Your task to perform on an android device: Open notification settings Image 0: 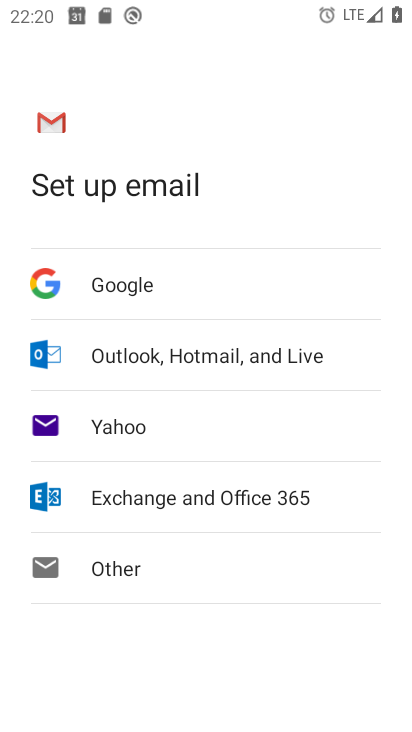
Step 0: press home button
Your task to perform on an android device: Open notification settings Image 1: 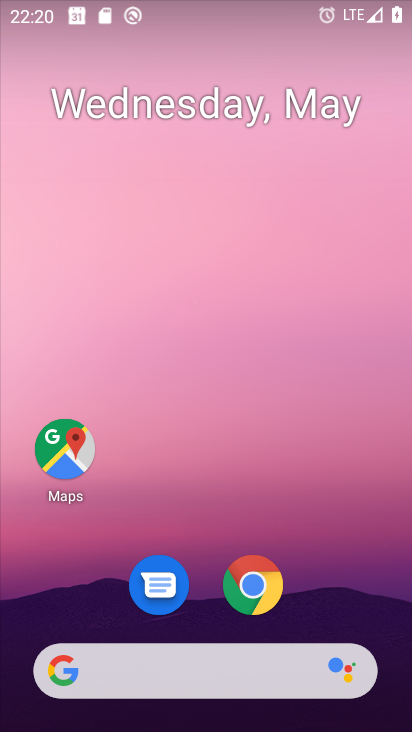
Step 1: drag from (265, 448) to (270, 36)
Your task to perform on an android device: Open notification settings Image 2: 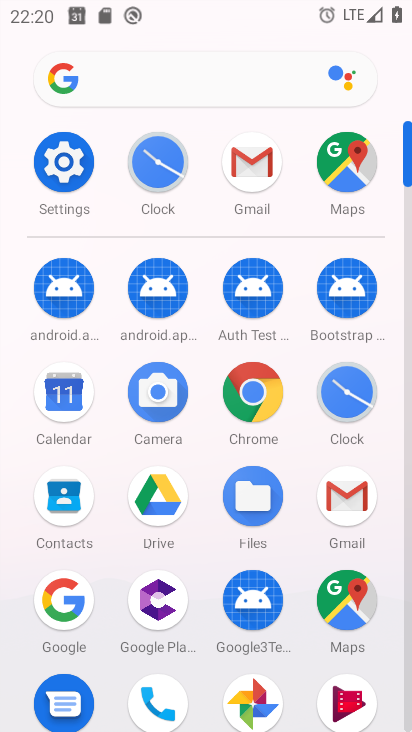
Step 2: click (62, 156)
Your task to perform on an android device: Open notification settings Image 3: 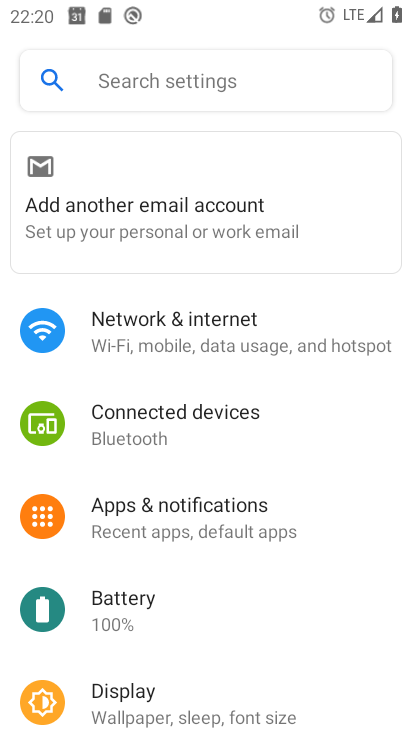
Step 3: click (201, 520)
Your task to perform on an android device: Open notification settings Image 4: 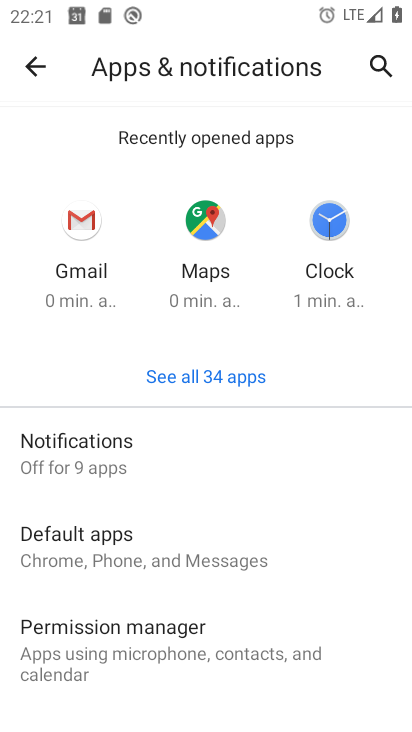
Step 4: click (181, 453)
Your task to perform on an android device: Open notification settings Image 5: 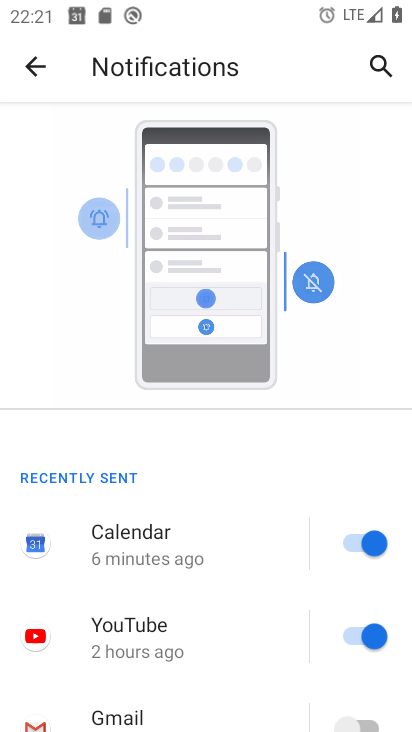
Step 5: task complete